Your task to perform on an android device: all mails in gmail Image 0: 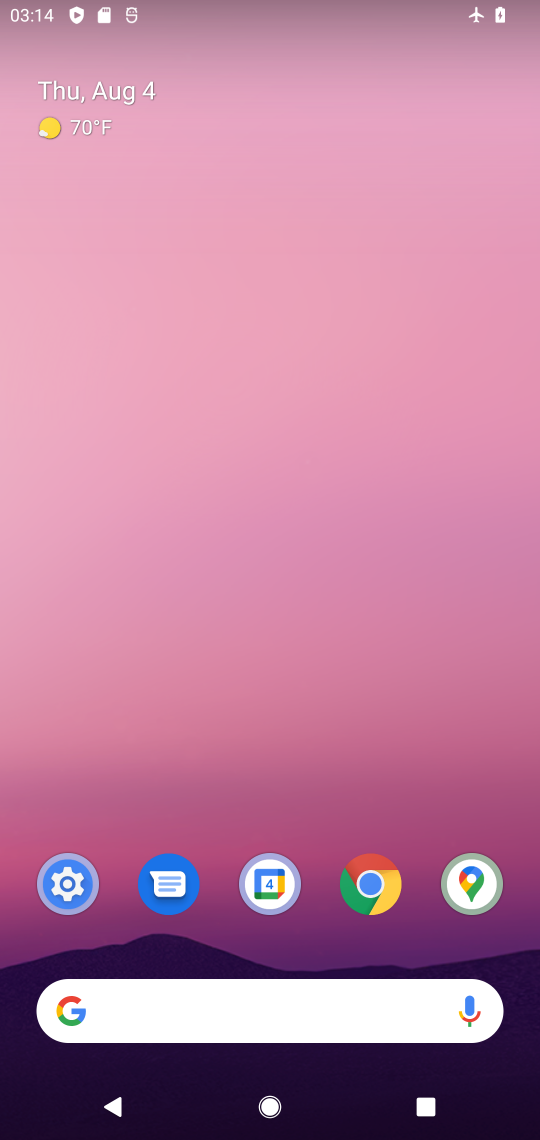
Step 0: press home button
Your task to perform on an android device: all mails in gmail Image 1: 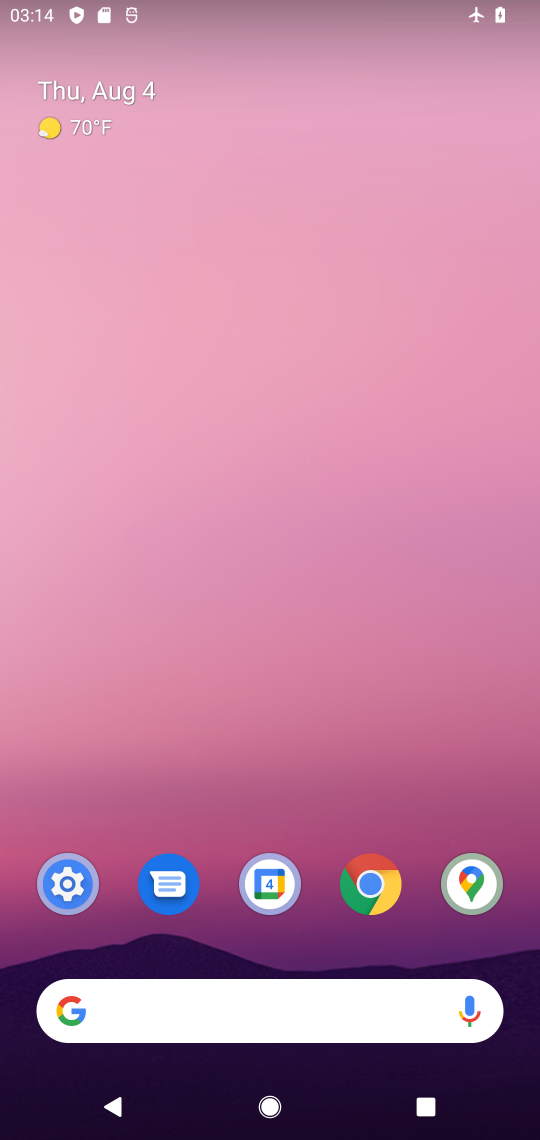
Step 1: drag from (331, 652) to (337, 253)
Your task to perform on an android device: all mails in gmail Image 2: 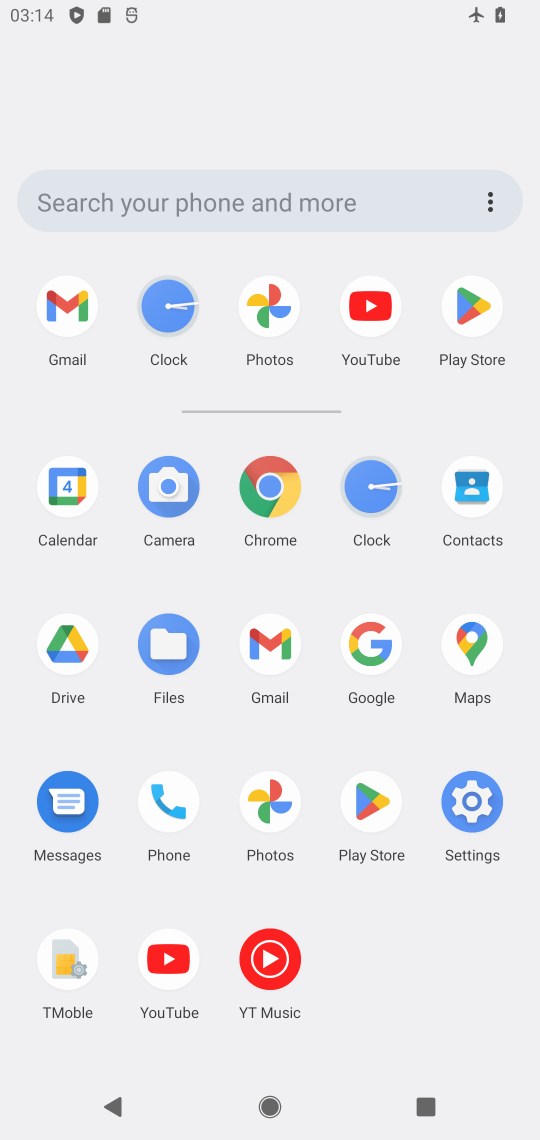
Step 2: drag from (339, 353) to (372, 69)
Your task to perform on an android device: all mails in gmail Image 3: 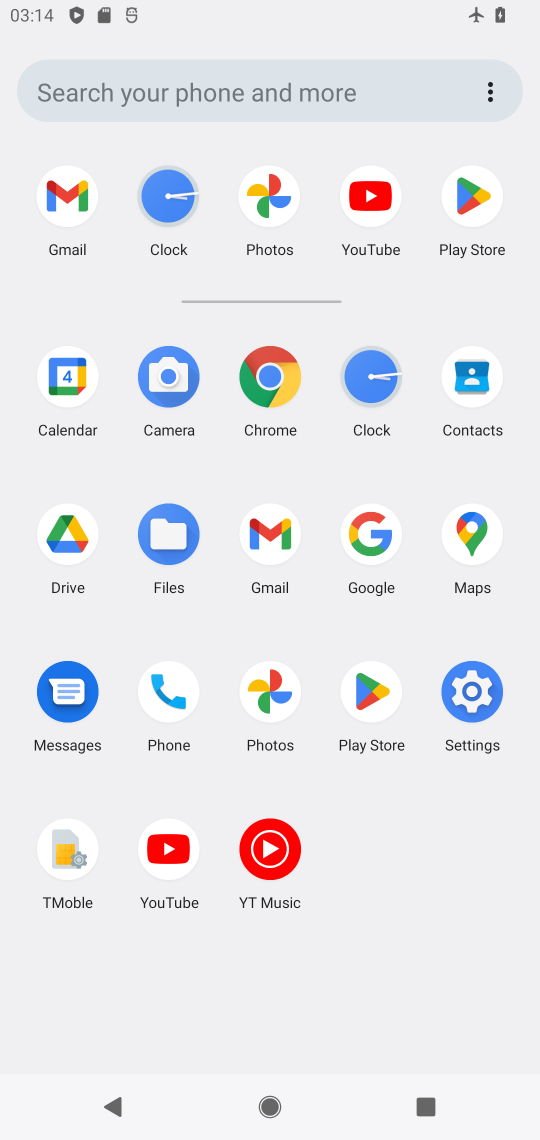
Step 3: click (272, 548)
Your task to perform on an android device: all mails in gmail Image 4: 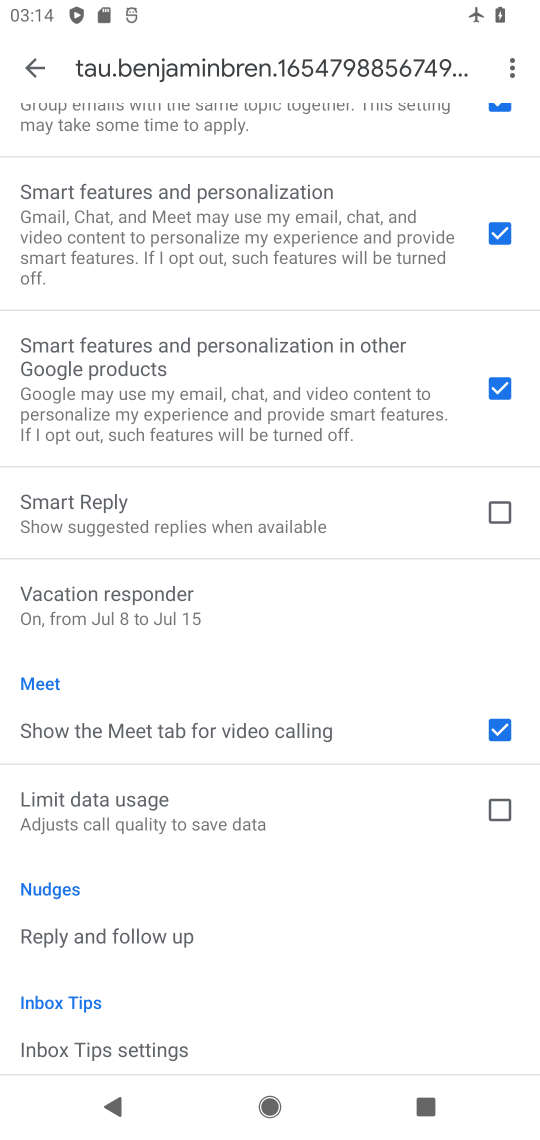
Step 4: press back button
Your task to perform on an android device: all mails in gmail Image 5: 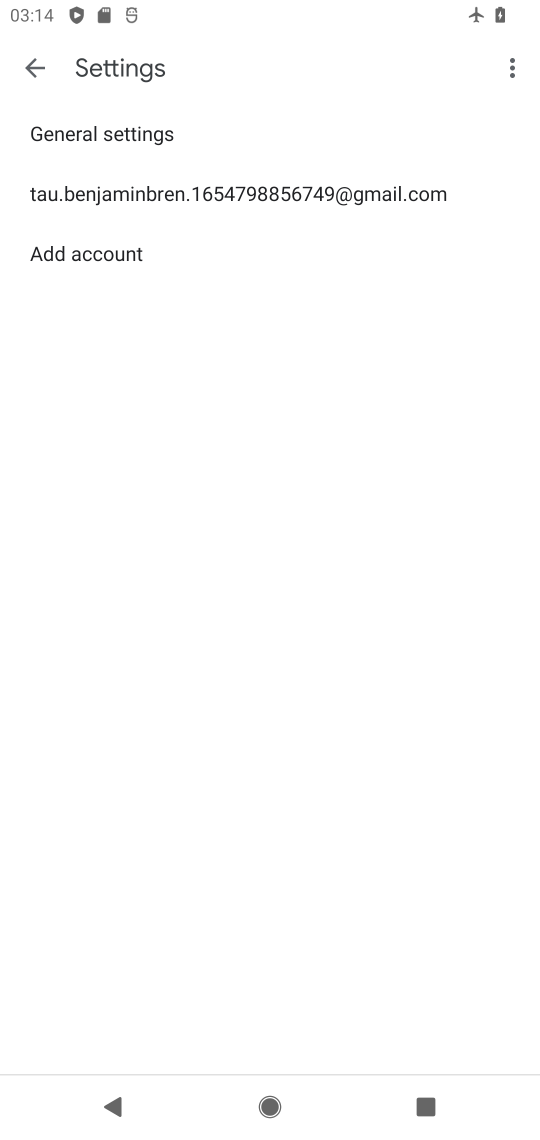
Step 5: press back button
Your task to perform on an android device: all mails in gmail Image 6: 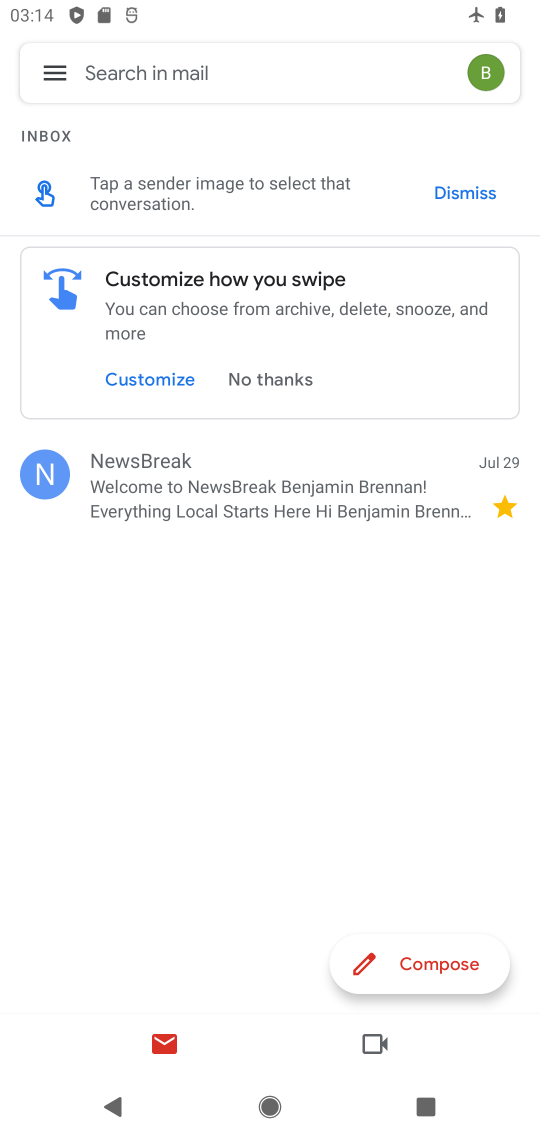
Step 6: click (50, 67)
Your task to perform on an android device: all mails in gmail Image 7: 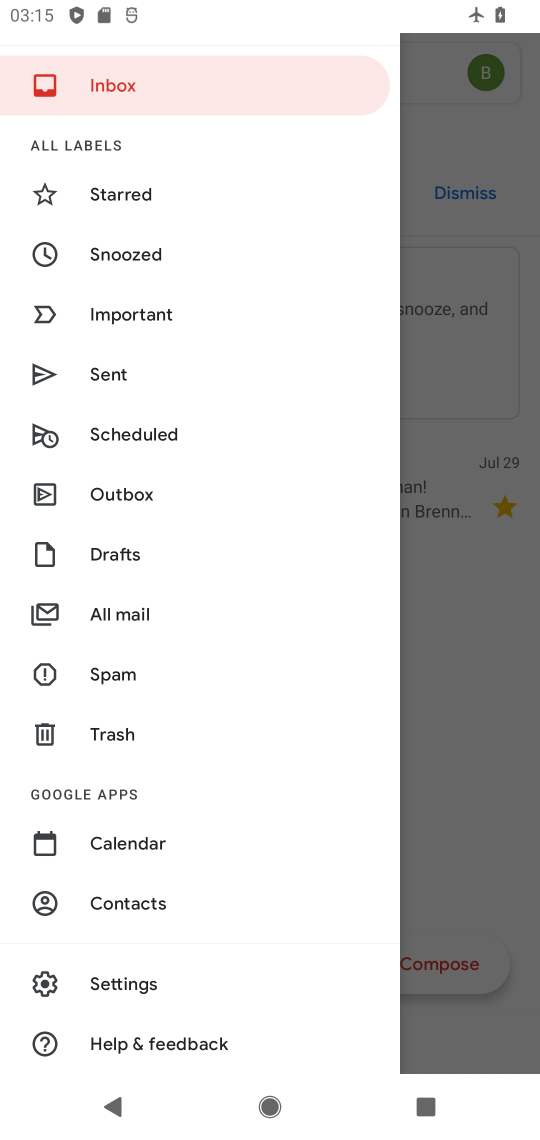
Step 7: click (162, 617)
Your task to perform on an android device: all mails in gmail Image 8: 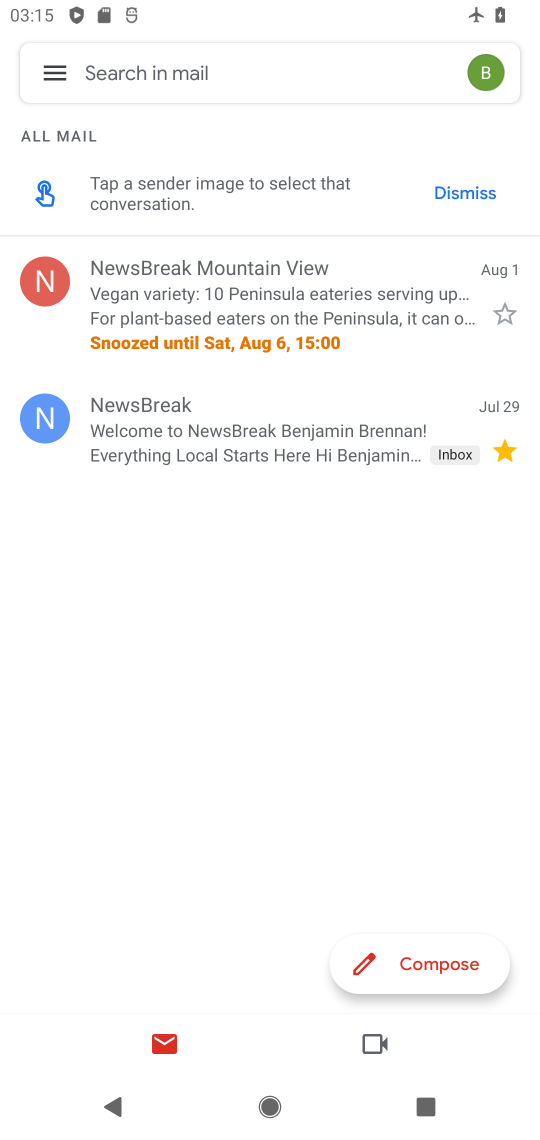
Step 8: task complete